Your task to perform on an android device: toggle notifications settings in the gmail app Image 0: 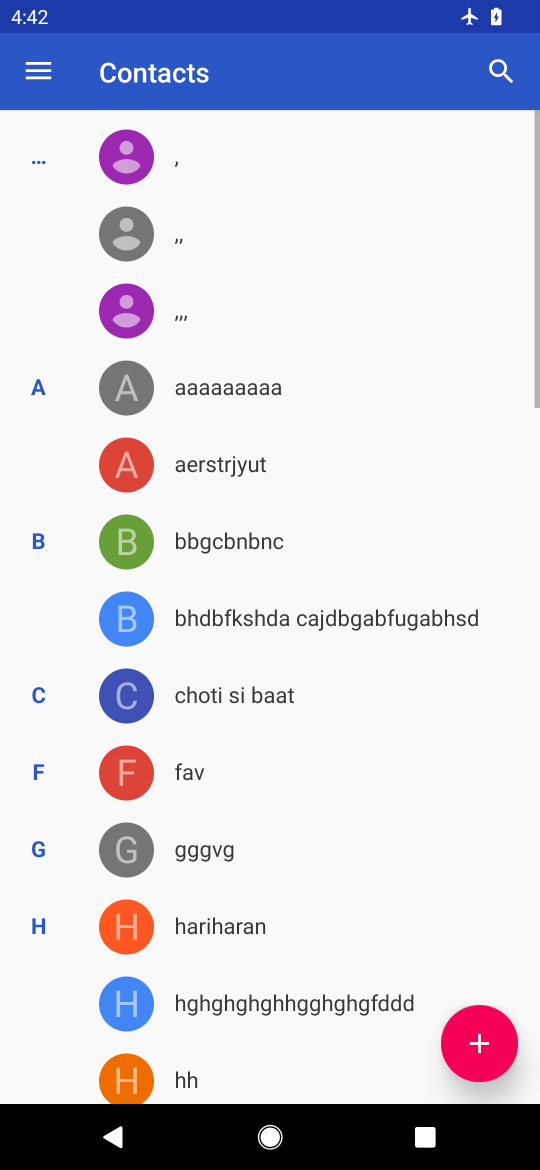
Step 0: press home button
Your task to perform on an android device: toggle notifications settings in the gmail app Image 1: 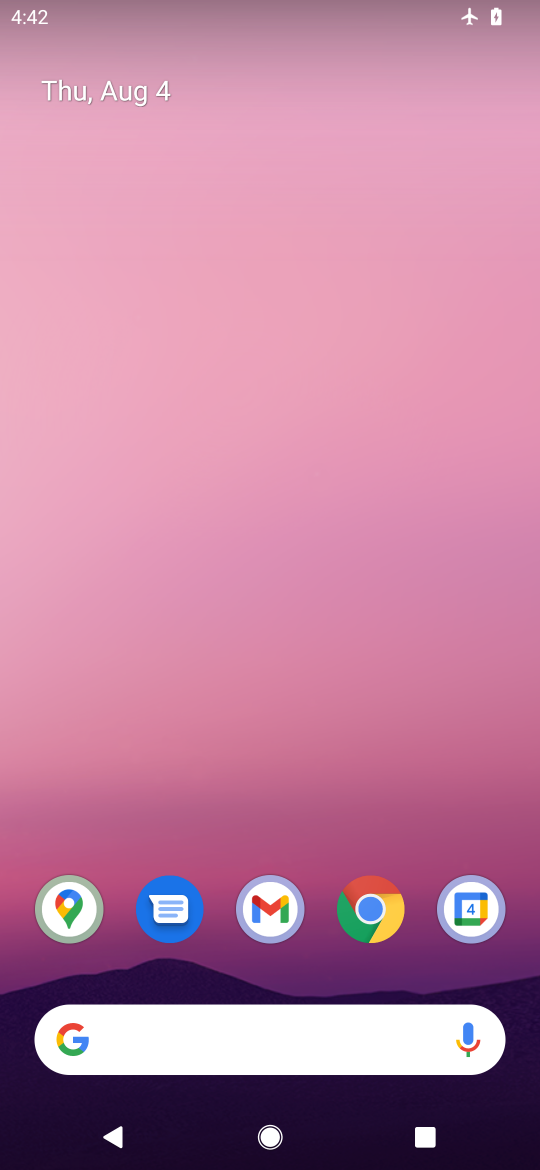
Step 1: drag from (311, 838) to (354, 127)
Your task to perform on an android device: toggle notifications settings in the gmail app Image 2: 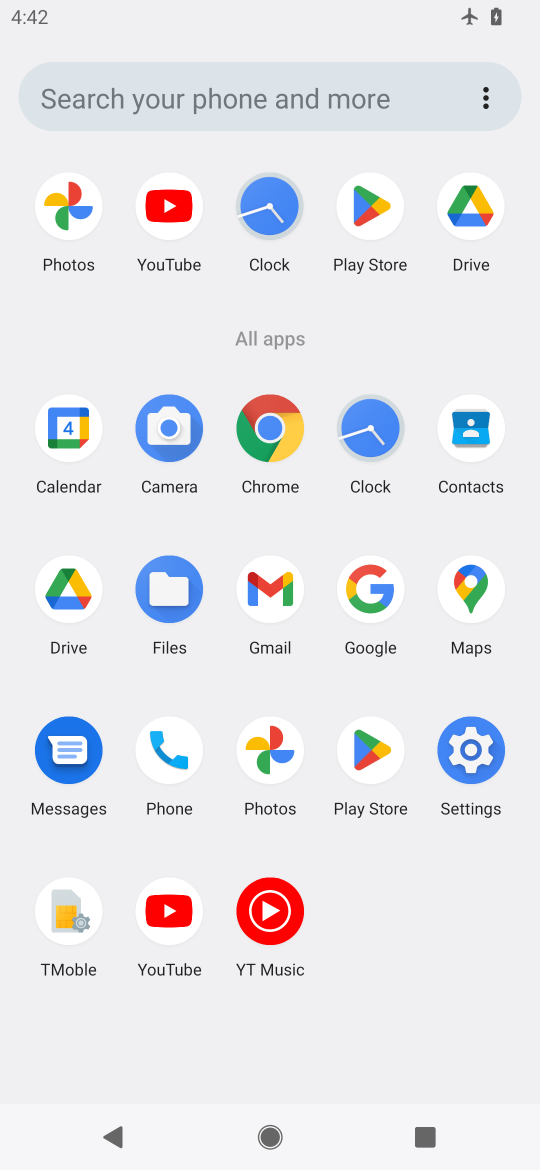
Step 2: click (255, 595)
Your task to perform on an android device: toggle notifications settings in the gmail app Image 3: 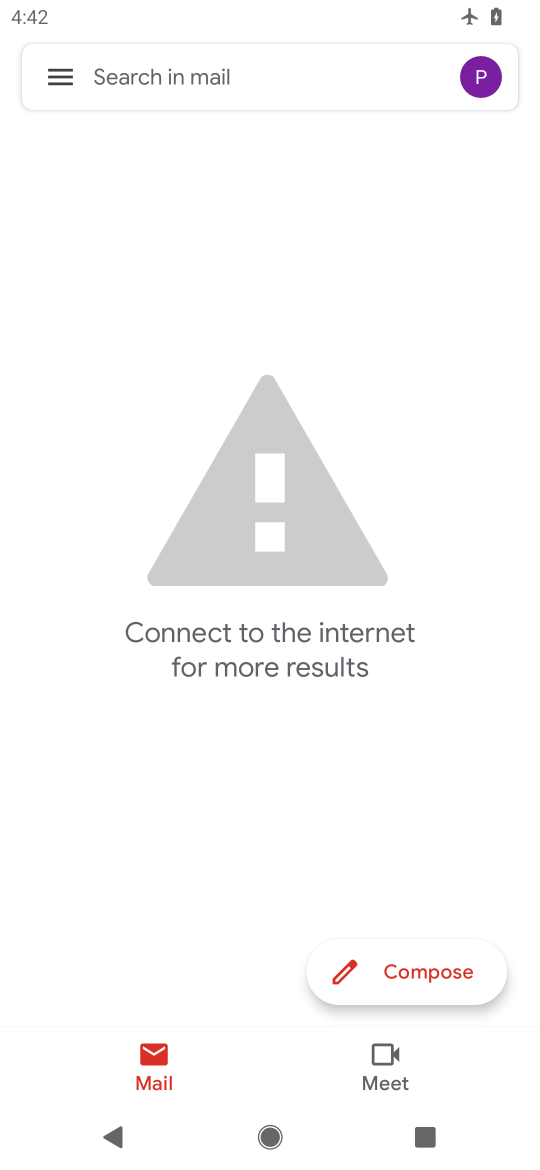
Step 3: click (53, 87)
Your task to perform on an android device: toggle notifications settings in the gmail app Image 4: 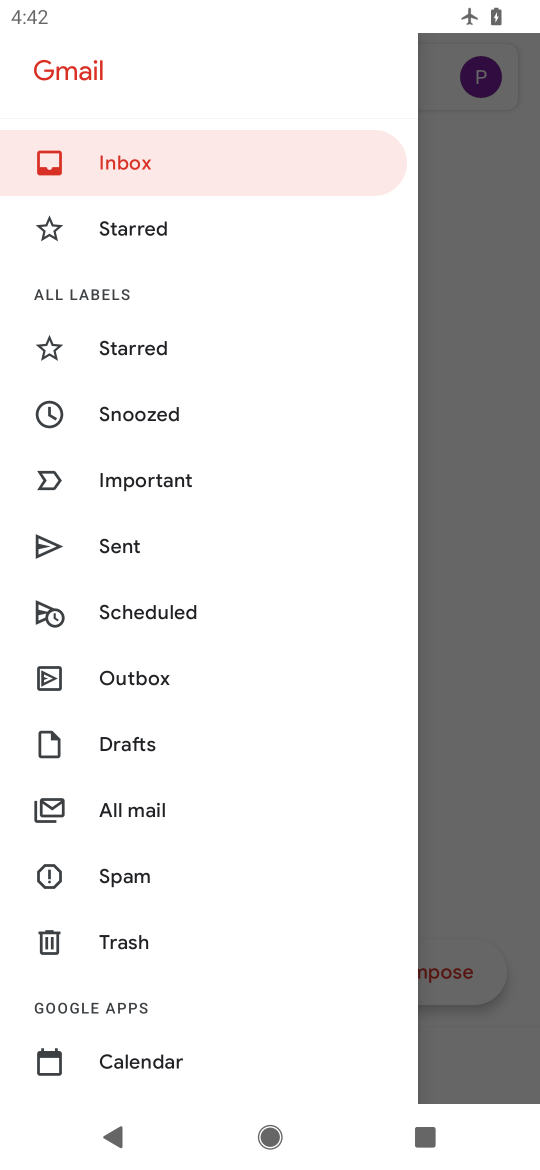
Step 4: click (500, 94)
Your task to perform on an android device: toggle notifications settings in the gmail app Image 5: 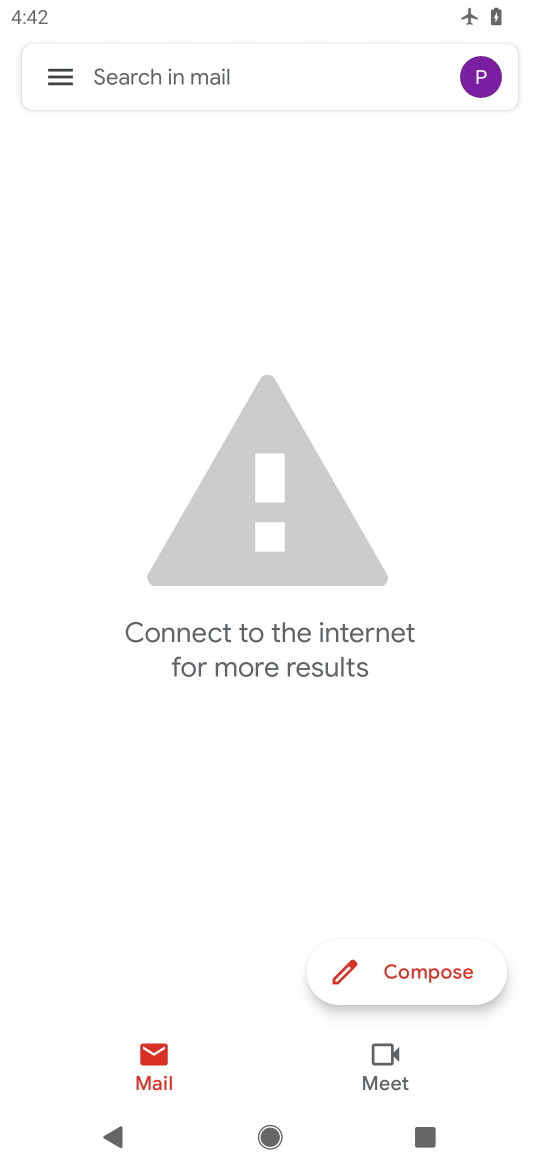
Step 5: click (62, 68)
Your task to perform on an android device: toggle notifications settings in the gmail app Image 6: 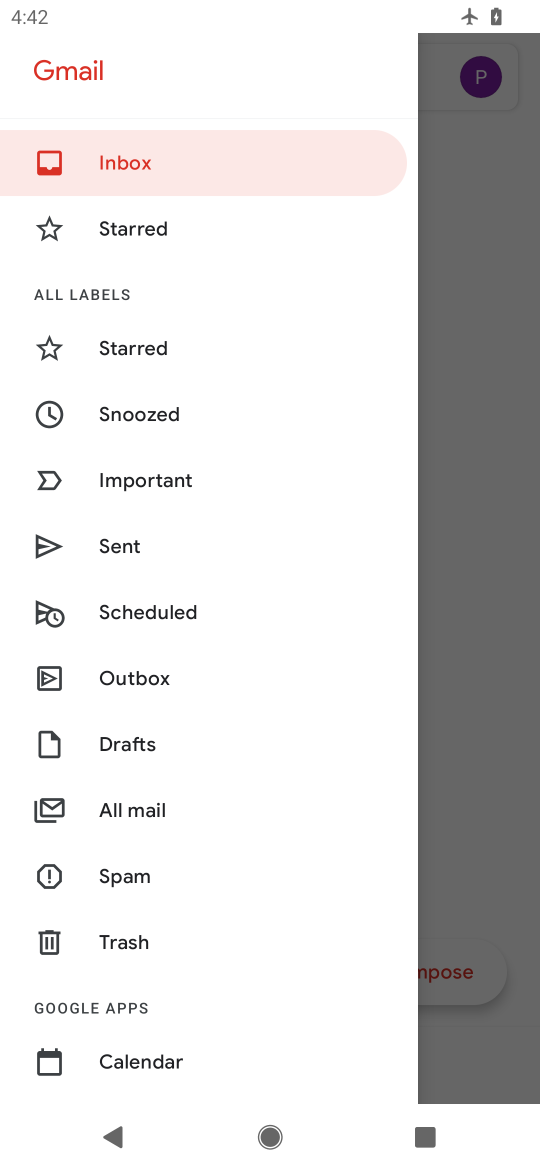
Step 6: drag from (224, 1015) to (277, 162)
Your task to perform on an android device: toggle notifications settings in the gmail app Image 7: 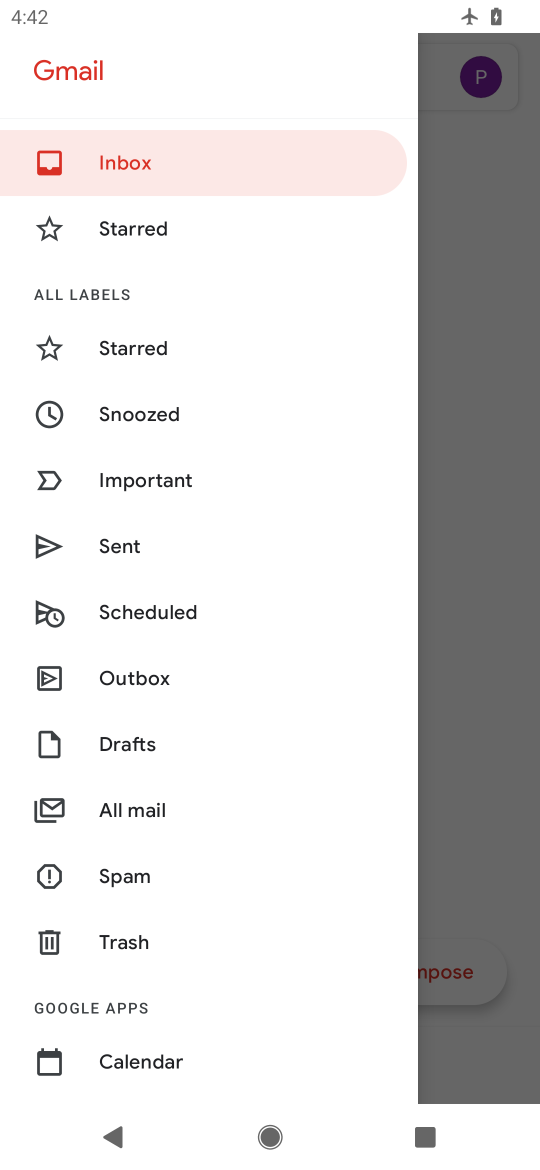
Step 7: drag from (212, 998) to (236, 295)
Your task to perform on an android device: toggle notifications settings in the gmail app Image 8: 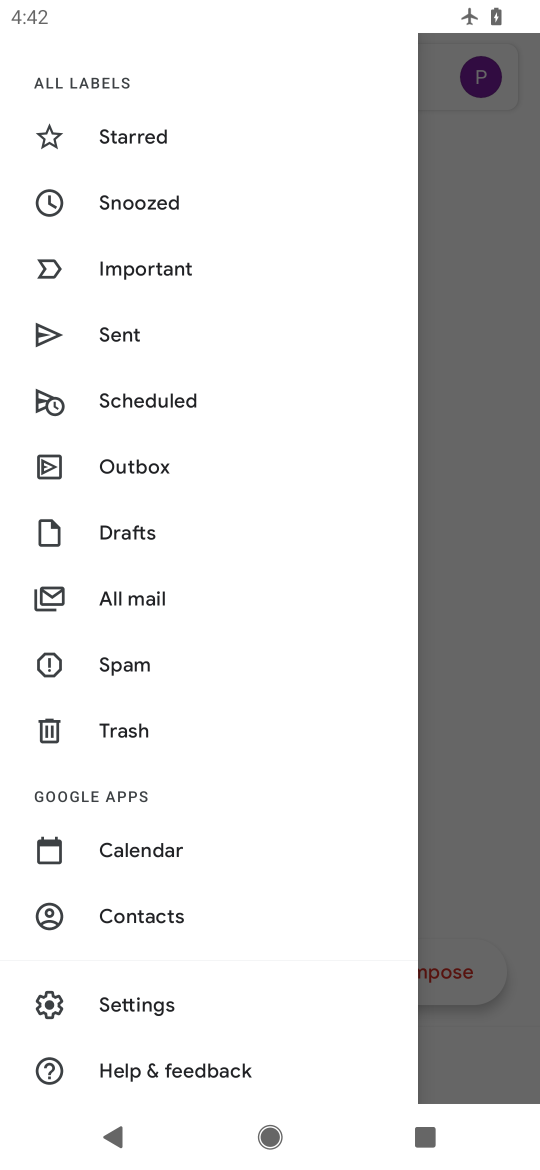
Step 8: click (124, 1005)
Your task to perform on an android device: toggle notifications settings in the gmail app Image 9: 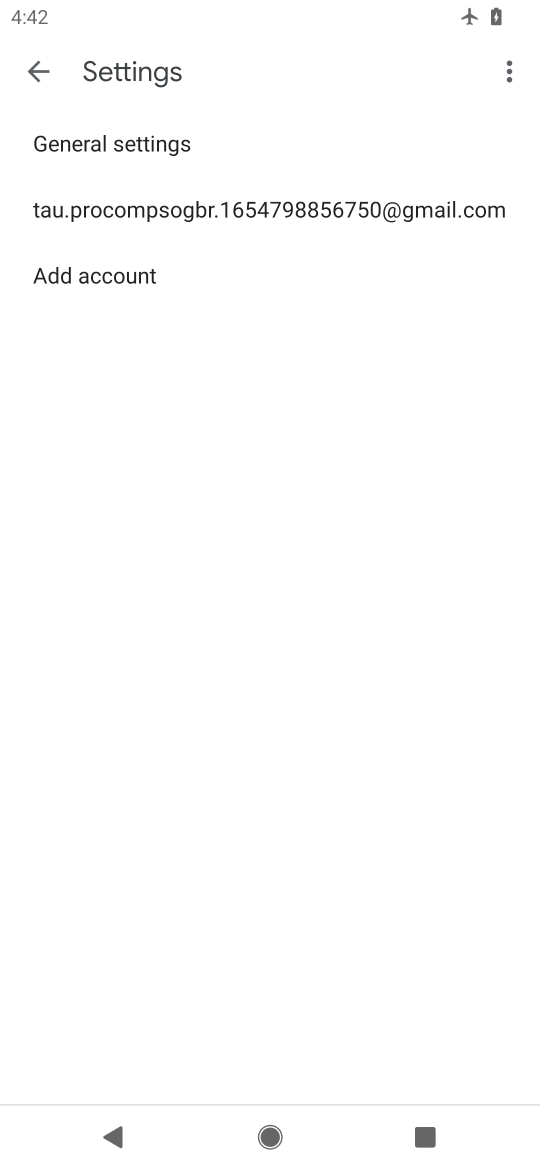
Step 9: click (98, 202)
Your task to perform on an android device: toggle notifications settings in the gmail app Image 10: 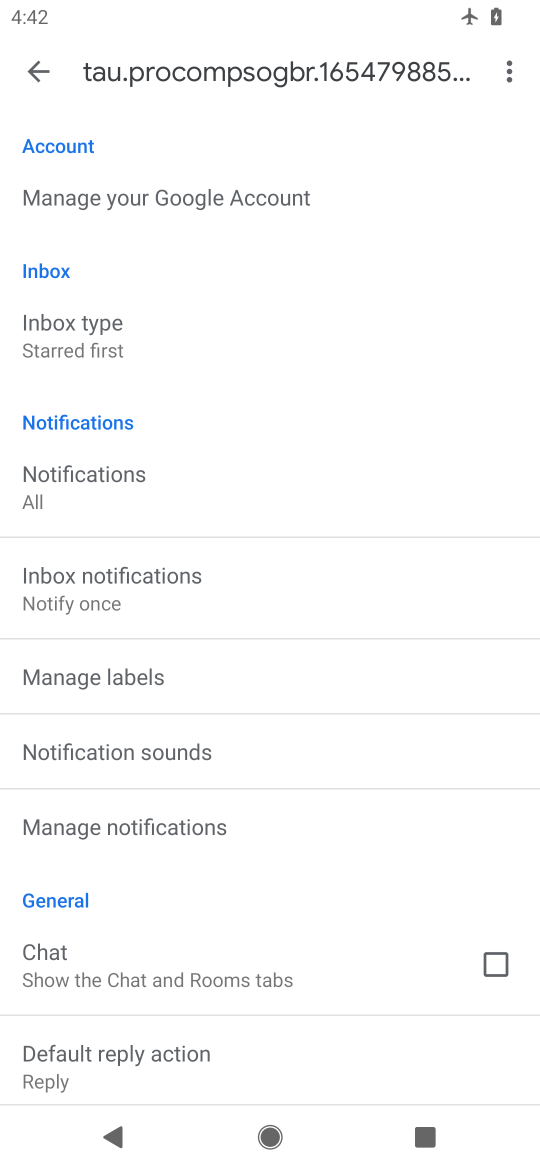
Step 10: click (120, 832)
Your task to perform on an android device: toggle notifications settings in the gmail app Image 11: 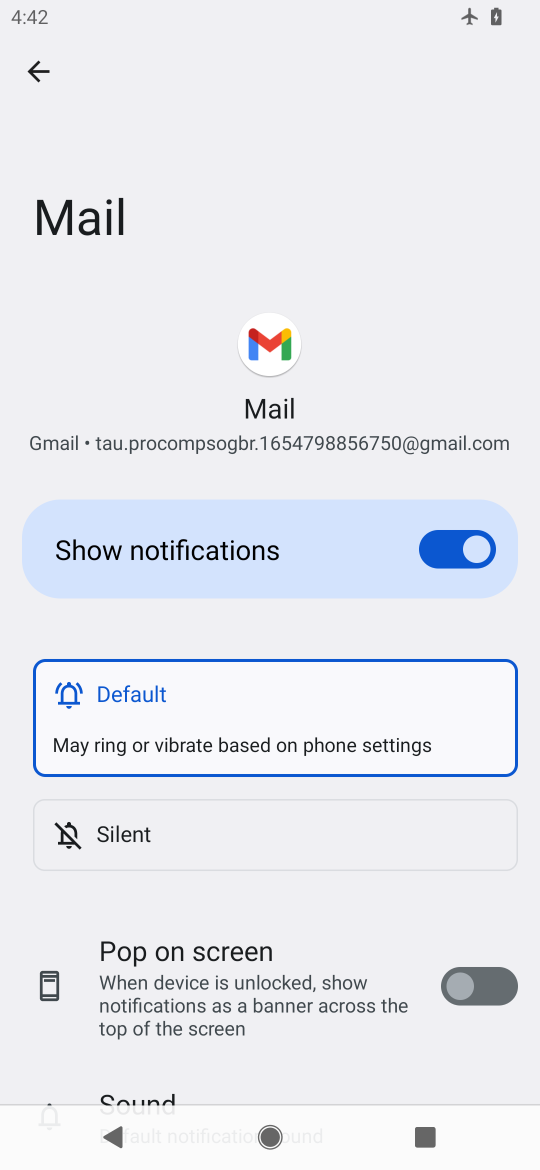
Step 11: click (457, 559)
Your task to perform on an android device: toggle notifications settings in the gmail app Image 12: 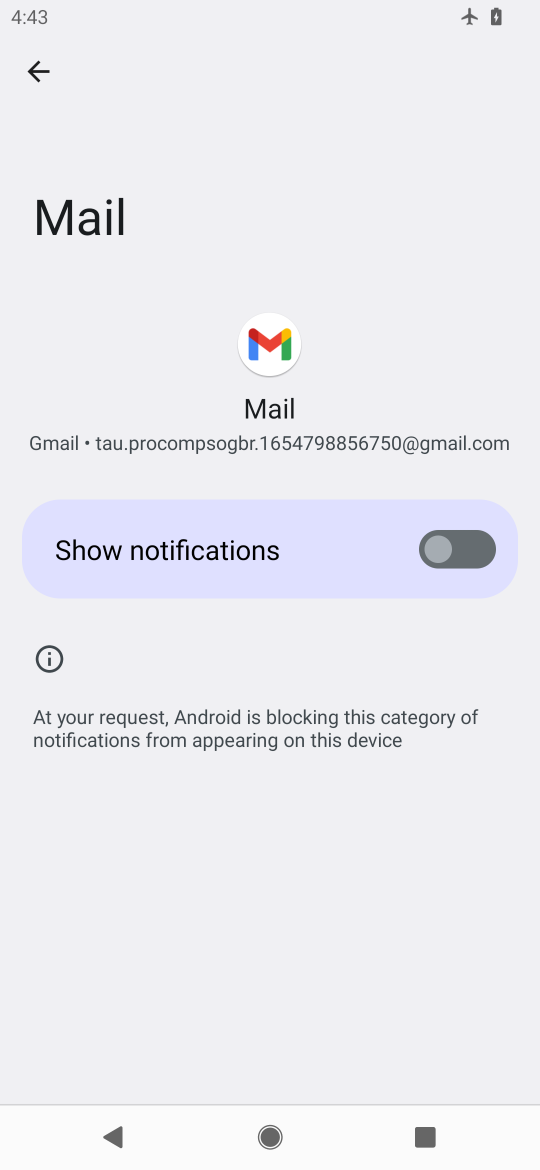
Step 12: task complete